Your task to perform on an android device: Open privacy settings Image 0: 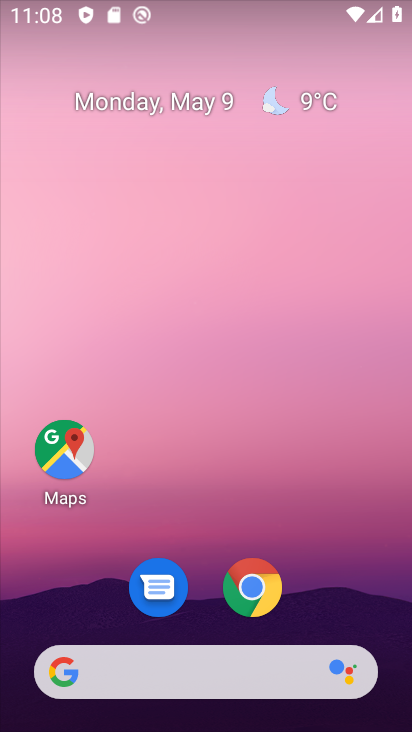
Step 0: drag from (207, 626) to (260, 285)
Your task to perform on an android device: Open privacy settings Image 1: 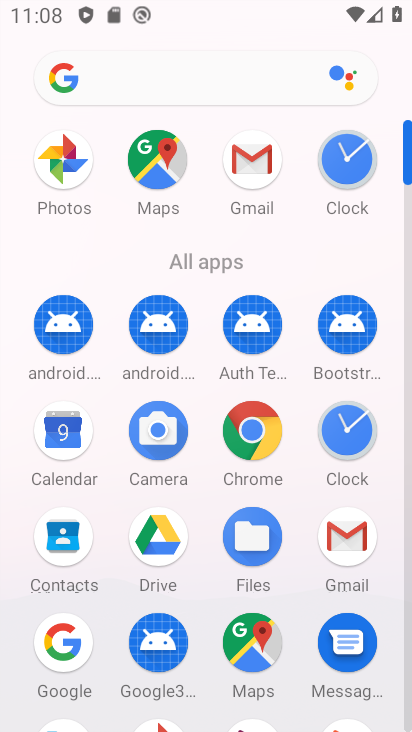
Step 1: drag from (287, 620) to (336, 292)
Your task to perform on an android device: Open privacy settings Image 2: 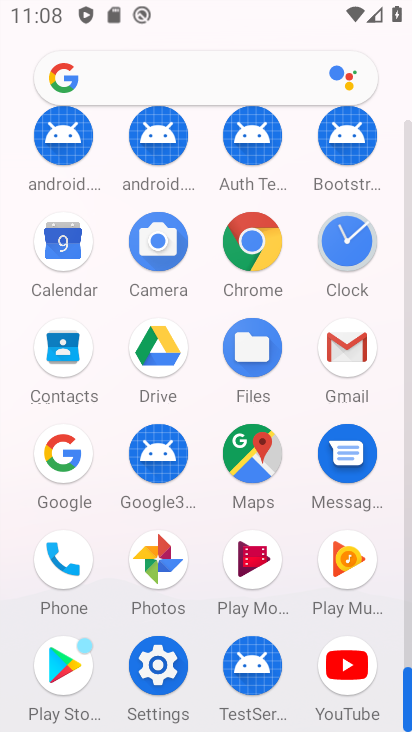
Step 2: click (153, 668)
Your task to perform on an android device: Open privacy settings Image 3: 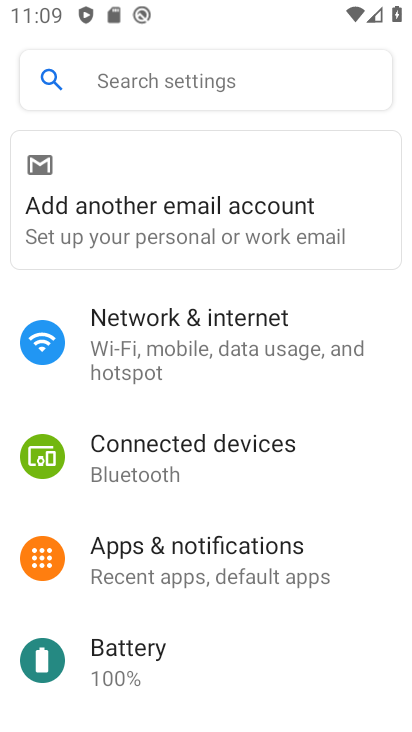
Step 3: drag from (206, 690) to (275, 303)
Your task to perform on an android device: Open privacy settings Image 4: 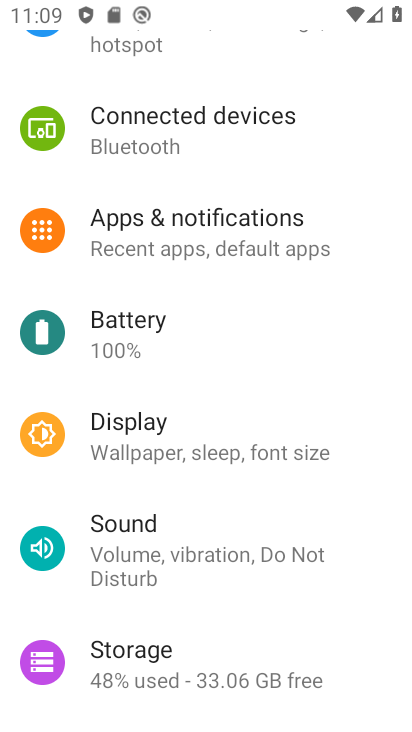
Step 4: drag from (212, 602) to (288, 285)
Your task to perform on an android device: Open privacy settings Image 5: 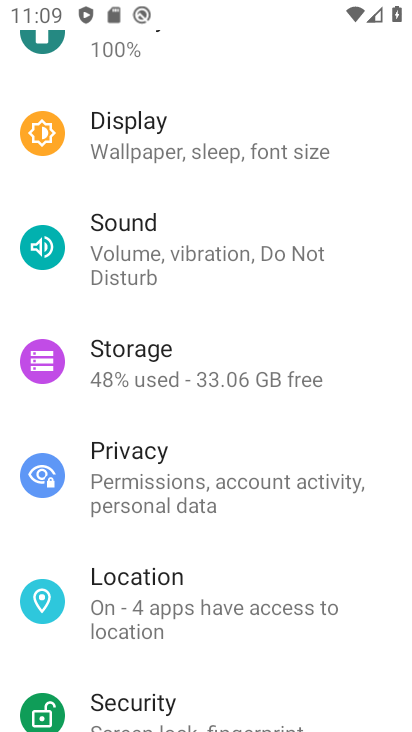
Step 5: click (153, 479)
Your task to perform on an android device: Open privacy settings Image 6: 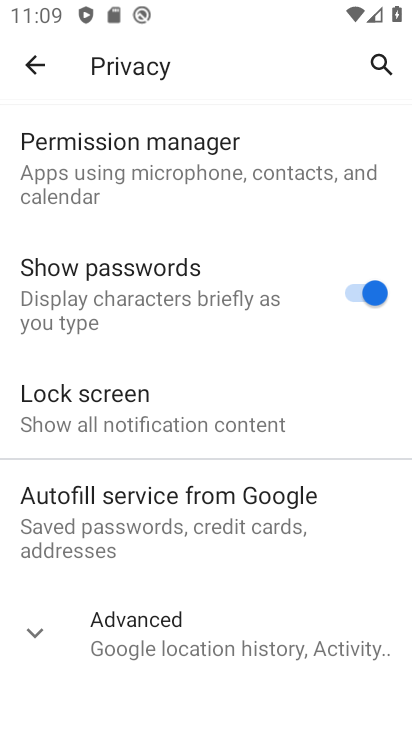
Step 6: task complete